Your task to perform on an android device: manage bookmarks in the chrome app Image 0: 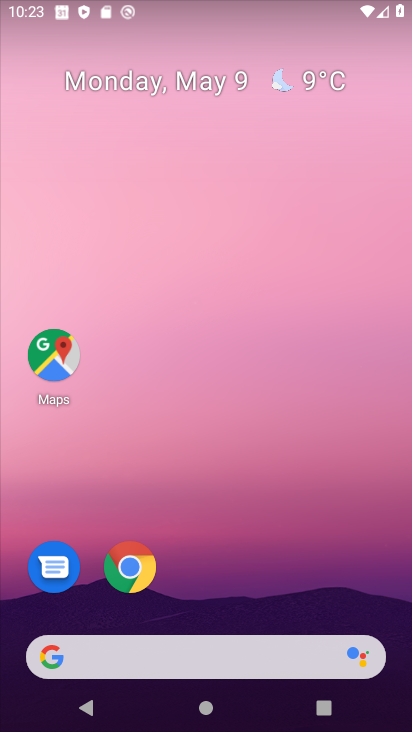
Step 0: click (129, 566)
Your task to perform on an android device: manage bookmarks in the chrome app Image 1: 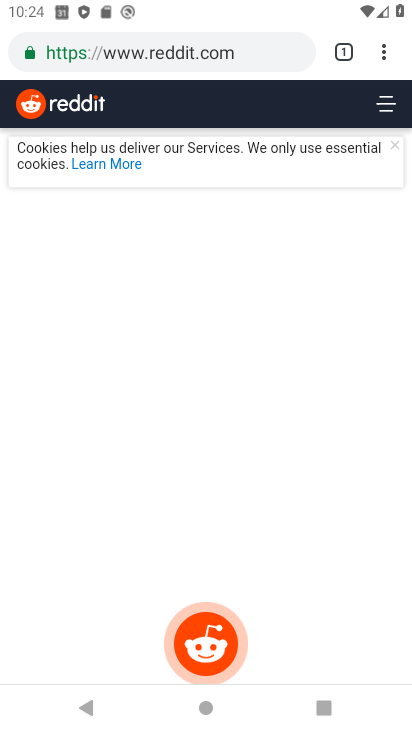
Step 1: press home button
Your task to perform on an android device: manage bookmarks in the chrome app Image 2: 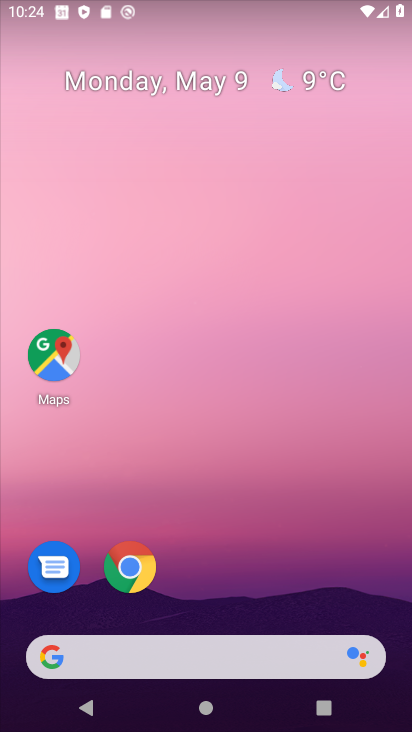
Step 2: click (121, 572)
Your task to perform on an android device: manage bookmarks in the chrome app Image 3: 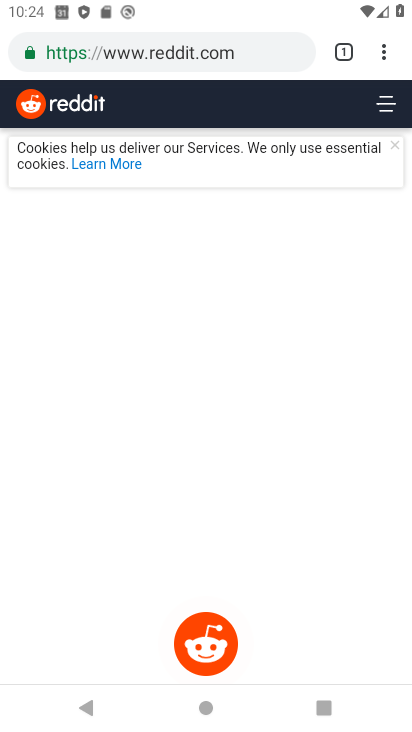
Step 3: click (377, 57)
Your task to perform on an android device: manage bookmarks in the chrome app Image 4: 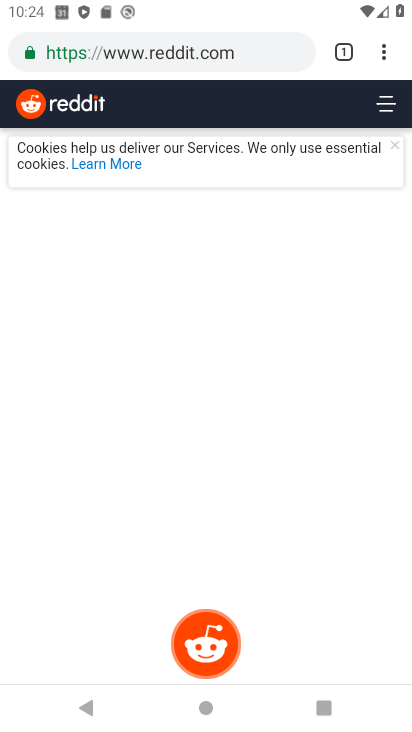
Step 4: click (384, 49)
Your task to perform on an android device: manage bookmarks in the chrome app Image 5: 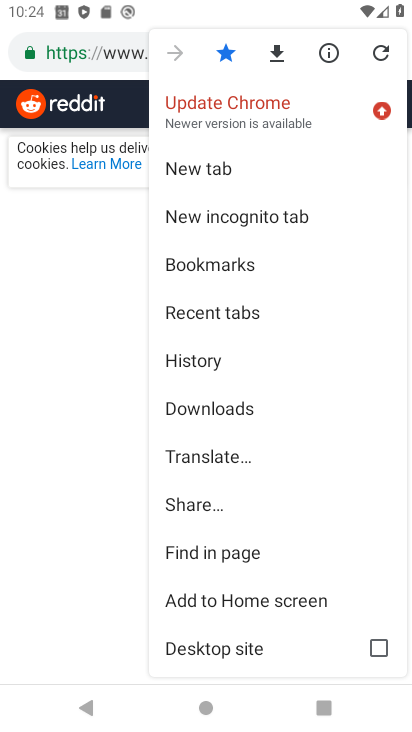
Step 5: click (255, 260)
Your task to perform on an android device: manage bookmarks in the chrome app Image 6: 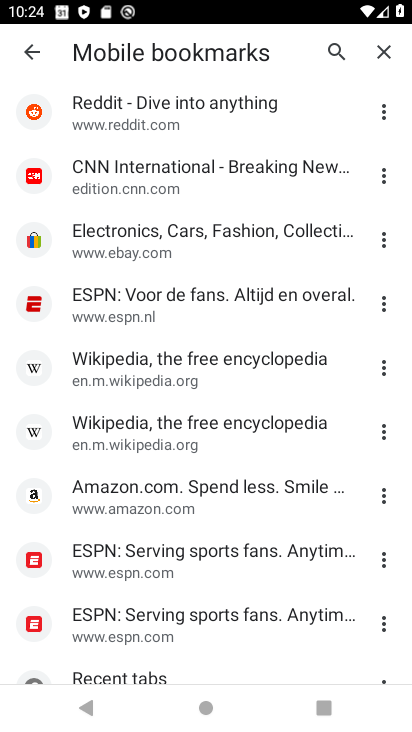
Step 6: click (387, 234)
Your task to perform on an android device: manage bookmarks in the chrome app Image 7: 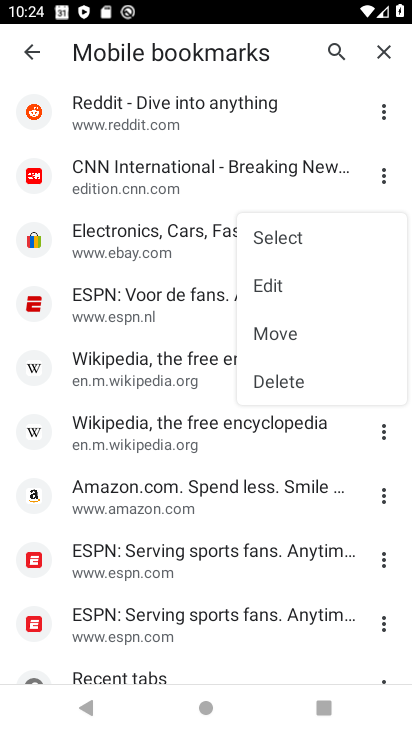
Step 7: click (290, 371)
Your task to perform on an android device: manage bookmarks in the chrome app Image 8: 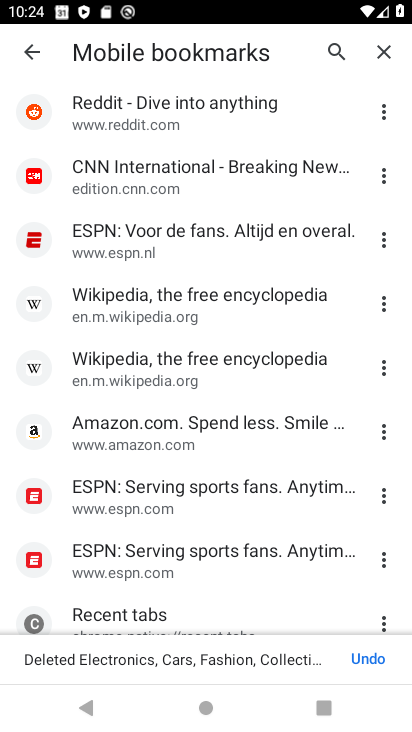
Step 8: task complete